Your task to perform on an android device: find snoozed emails in the gmail app Image 0: 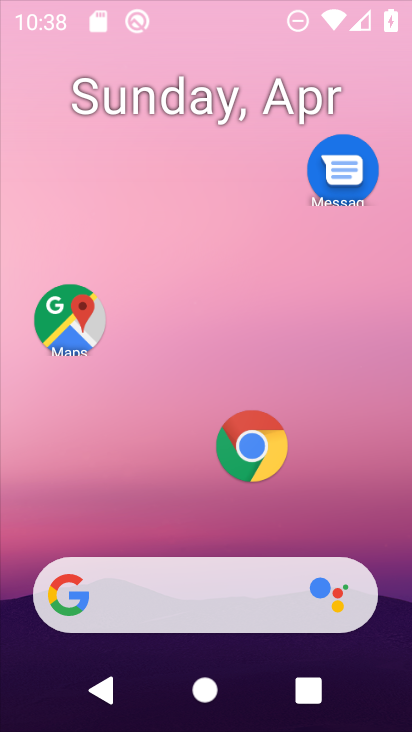
Step 0: drag from (194, 466) to (252, 59)
Your task to perform on an android device: find snoozed emails in the gmail app Image 1: 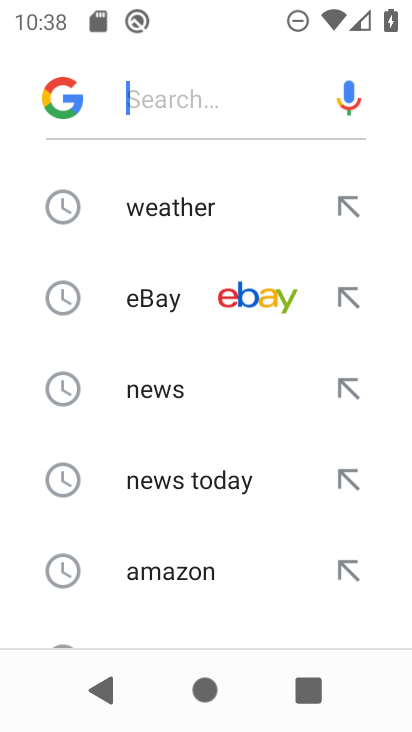
Step 1: press home button
Your task to perform on an android device: find snoozed emails in the gmail app Image 2: 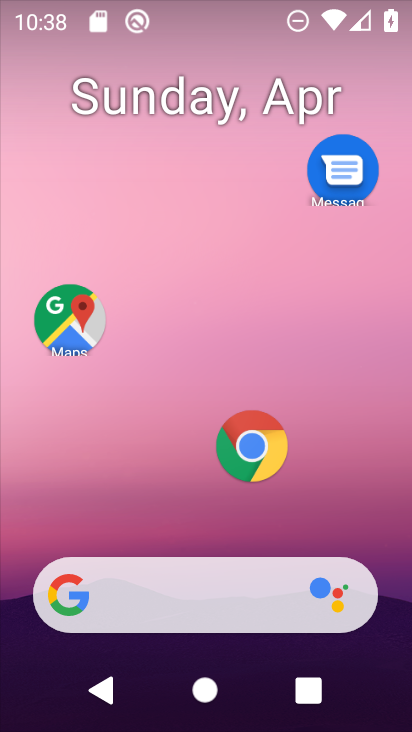
Step 2: drag from (212, 498) to (239, 225)
Your task to perform on an android device: find snoozed emails in the gmail app Image 3: 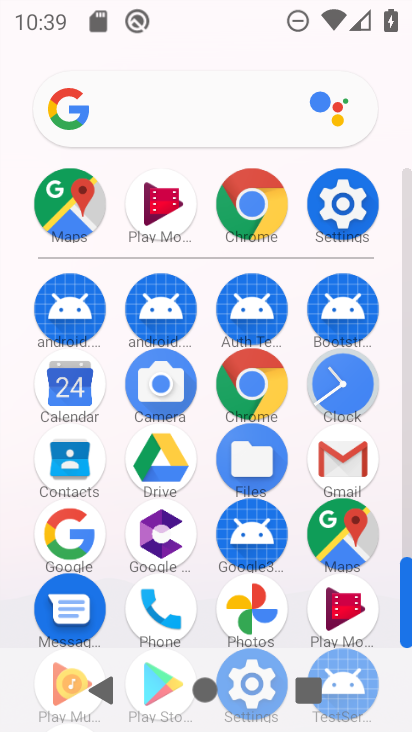
Step 3: click (333, 466)
Your task to perform on an android device: find snoozed emails in the gmail app Image 4: 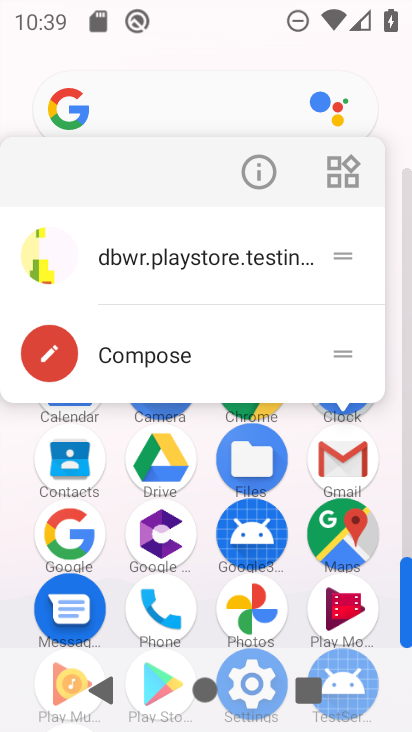
Step 4: click (246, 162)
Your task to perform on an android device: find snoozed emails in the gmail app Image 5: 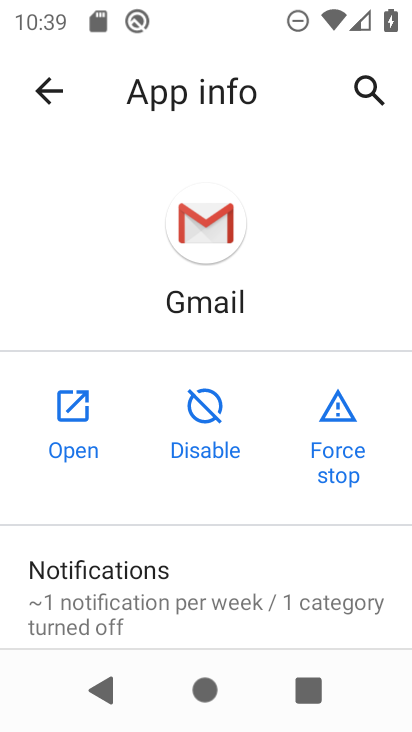
Step 5: click (71, 399)
Your task to perform on an android device: find snoozed emails in the gmail app Image 6: 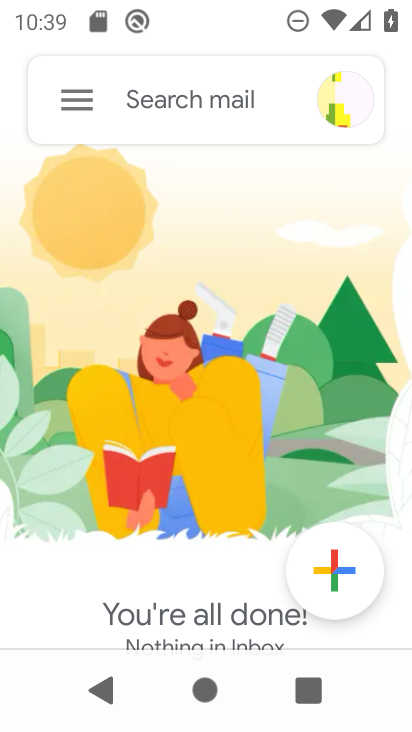
Step 6: click (78, 96)
Your task to perform on an android device: find snoozed emails in the gmail app Image 7: 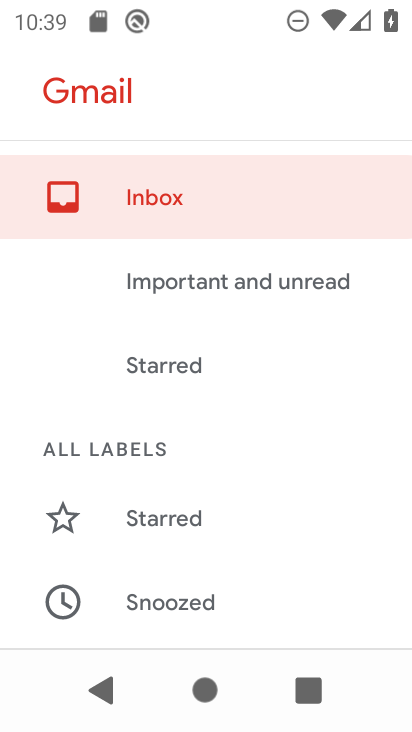
Step 7: click (220, 598)
Your task to perform on an android device: find snoozed emails in the gmail app Image 8: 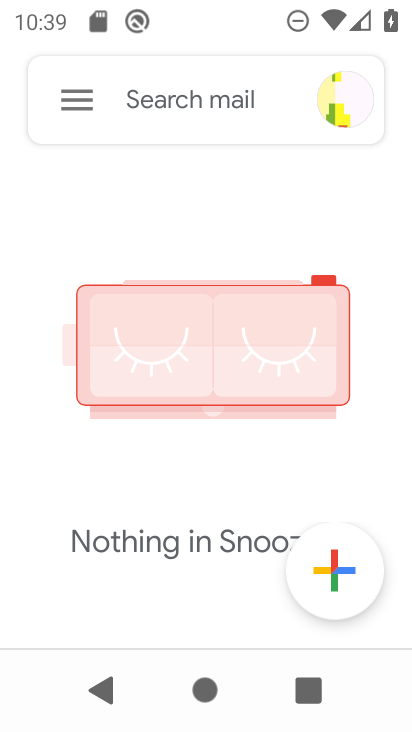
Step 8: task complete